Your task to perform on an android device: toggle priority inbox in the gmail app Image 0: 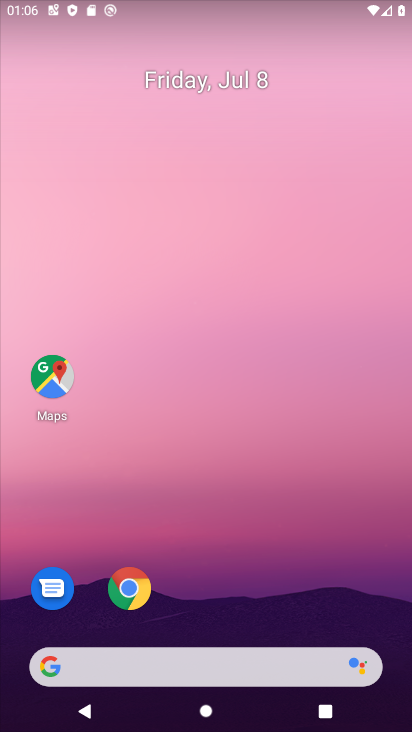
Step 0: drag from (221, 666) to (194, 221)
Your task to perform on an android device: toggle priority inbox in the gmail app Image 1: 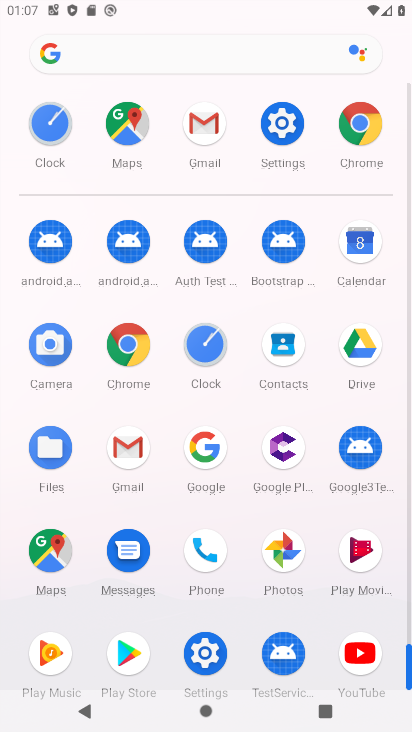
Step 1: click (131, 460)
Your task to perform on an android device: toggle priority inbox in the gmail app Image 2: 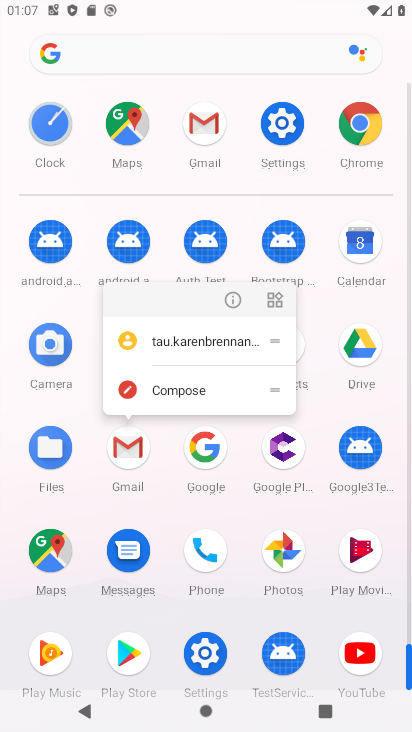
Step 2: click (229, 293)
Your task to perform on an android device: toggle priority inbox in the gmail app Image 3: 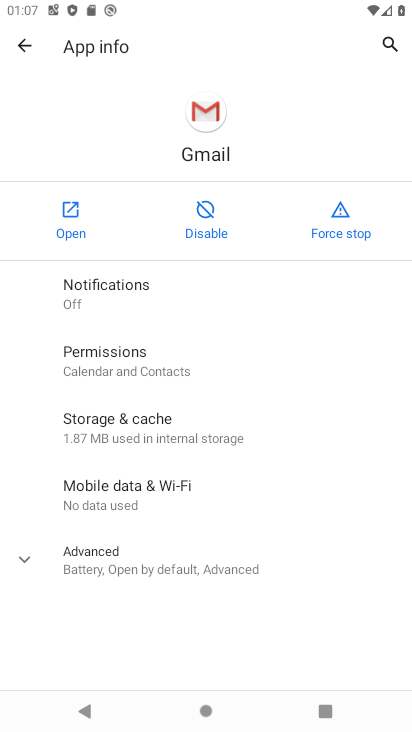
Step 3: click (41, 218)
Your task to perform on an android device: toggle priority inbox in the gmail app Image 4: 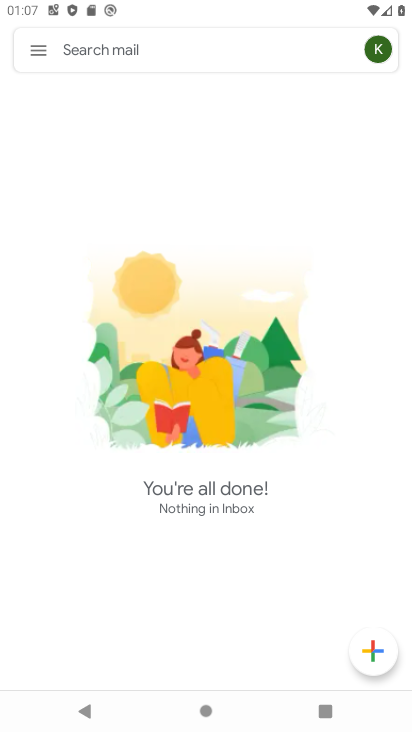
Step 4: drag from (204, 596) to (185, 378)
Your task to perform on an android device: toggle priority inbox in the gmail app Image 5: 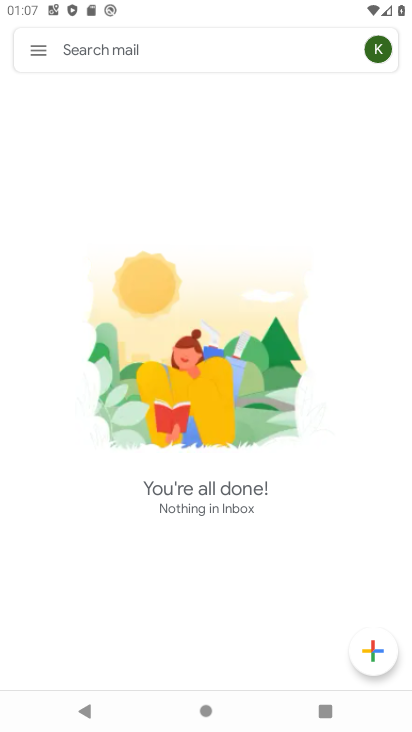
Step 5: click (30, 44)
Your task to perform on an android device: toggle priority inbox in the gmail app Image 6: 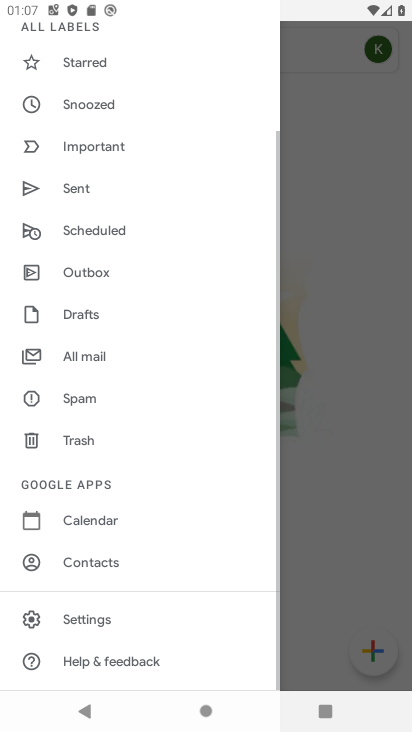
Step 6: drag from (169, 592) to (160, 205)
Your task to perform on an android device: toggle priority inbox in the gmail app Image 7: 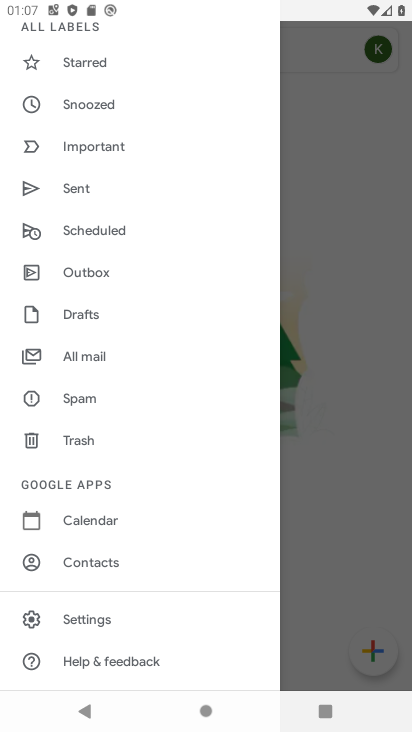
Step 7: click (98, 622)
Your task to perform on an android device: toggle priority inbox in the gmail app Image 8: 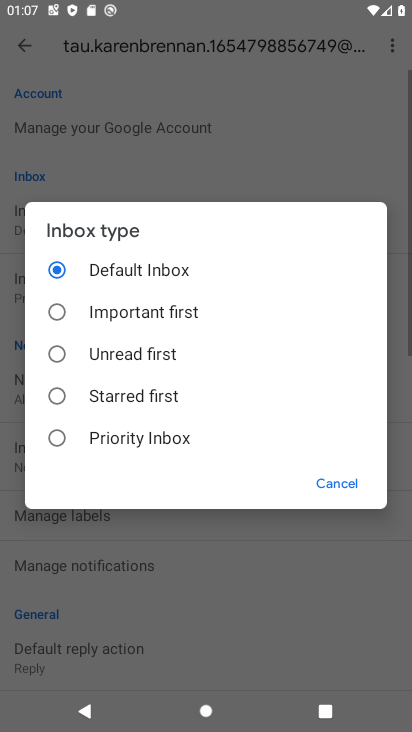
Step 8: drag from (122, 608) to (118, 264)
Your task to perform on an android device: toggle priority inbox in the gmail app Image 9: 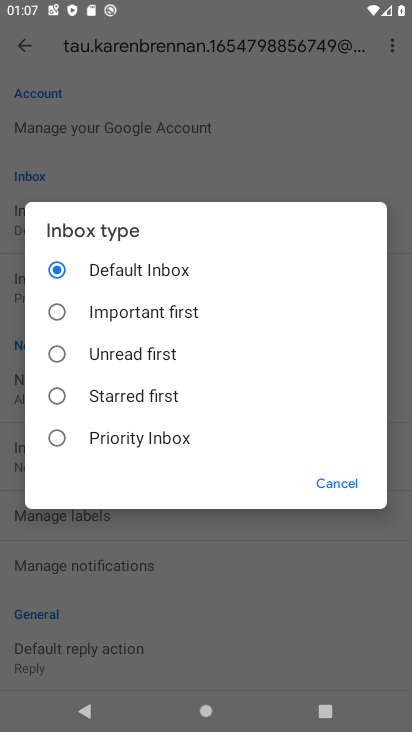
Step 9: click (132, 435)
Your task to perform on an android device: toggle priority inbox in the gmail app Image 10: 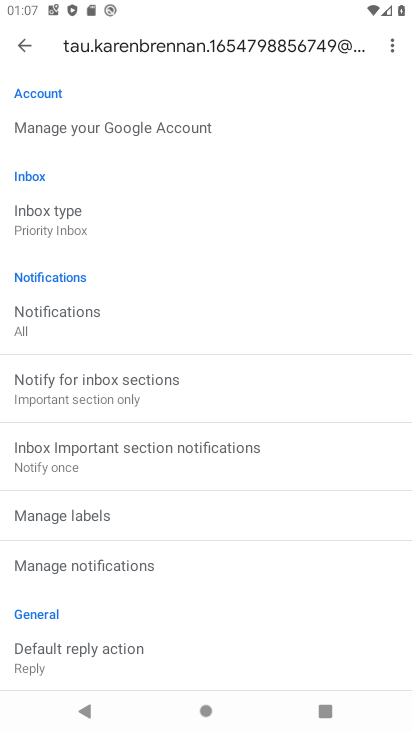
Step 10: task complete